Your task to perform on an android device: open app "The Home Depot" (install if not already installed) Image 0: 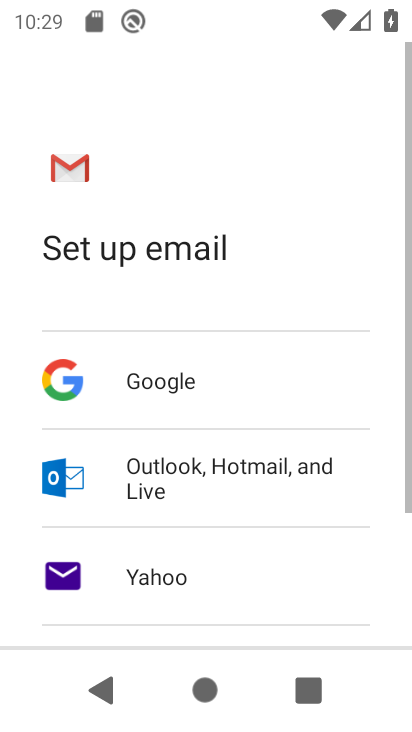
Step 0: press home button
Your task to perform on an android device: open app "The Home Depot" (install if not already installed) Image 1: 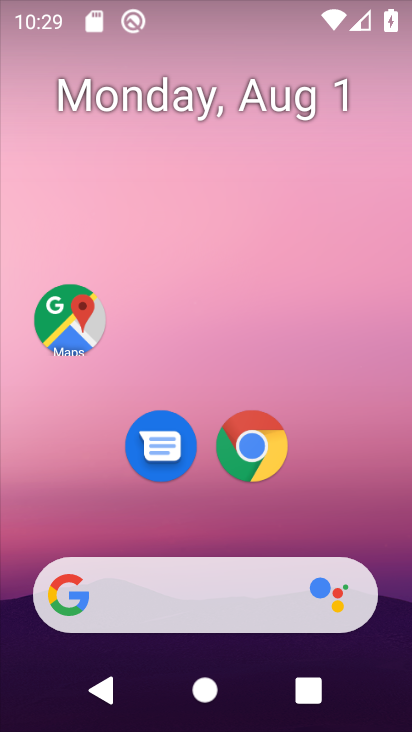
Step 1: drag from (216, 513) to (157, 110)
Your task to perform on an android device: open app "The Home Depot" (install if not already installed) Image 2: 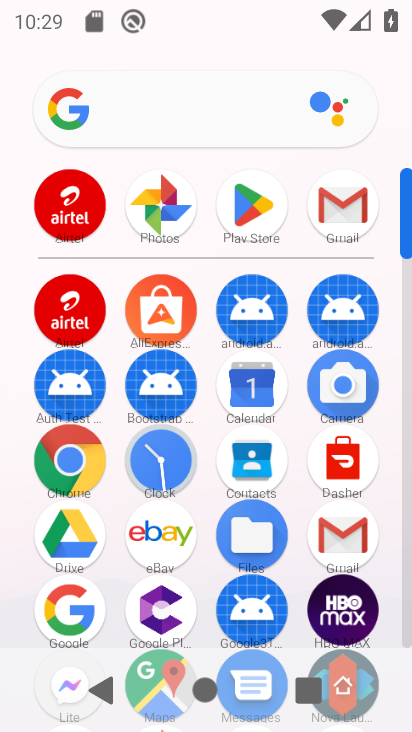
Step 2: click (246, 213)
Your task to perform on an android device: open app "The Home Depot" (install if not already installed) Image 3: 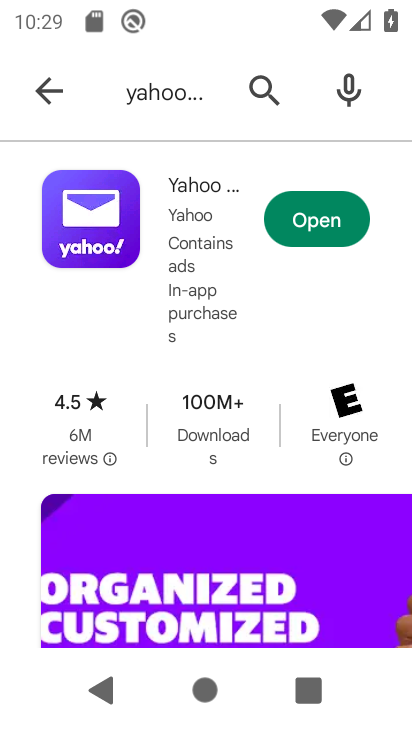
Step 3: click (255, 75)
Your task to perform on an android device: open app "The Home Depot" (install if not already installed) Image 4: 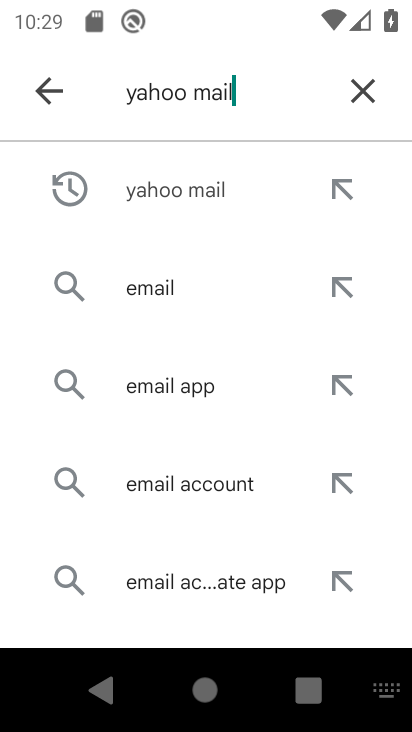
Step 4: click (366, 87)
Your task to perform on an android device: open app "The Home Depot" (install if not already installed) Image 5: 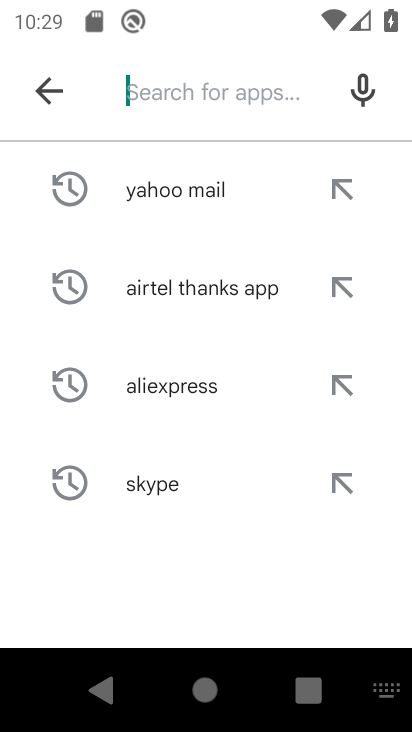
Step 5: type "The Home Depot"
Your task to perform on an android device: open app "The Home Depot" (install if not already installed) Image 6: 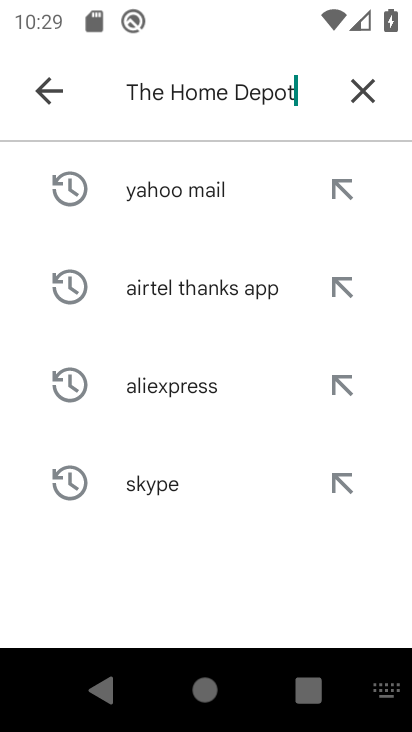
Step 6: type ""
Your task to perform on an android device: open app "The Home Depot" (install if not already installed) Image 7: 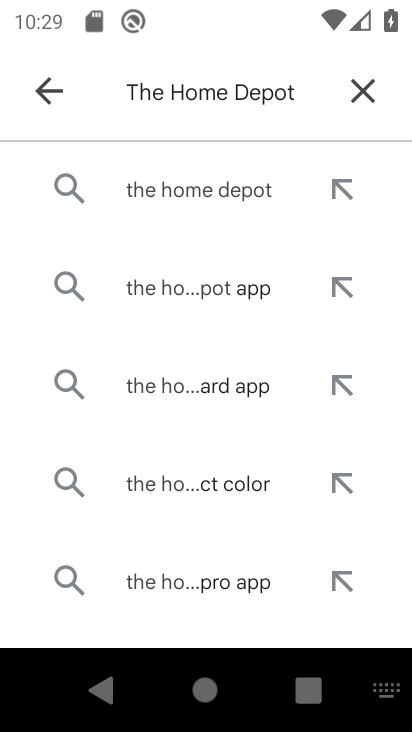
Step 7: click (243, 184)
Your task to perform on an android device: open app "The Home Depot" (install if not already installed) Image 8: 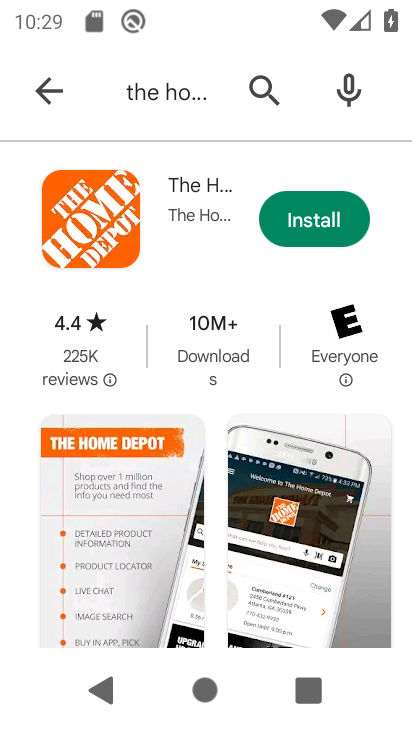
Step 8: click (317, 221)
Your task to perform on an android device: open app "The Home Depot" (install if not already installed) Image 9: 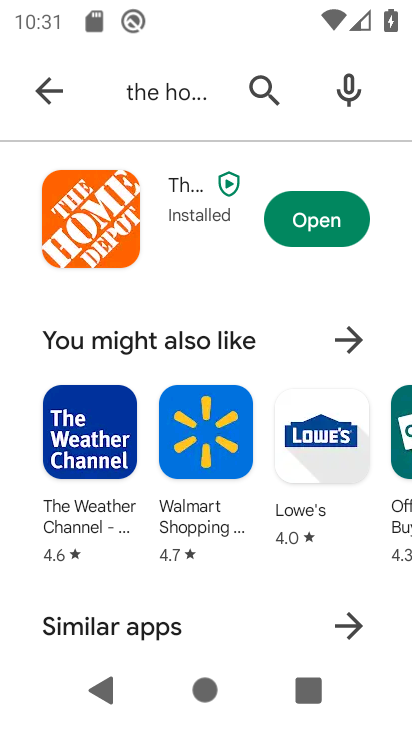
Step 9: click (327, 221)
Your task to perform on an android device: open app "The Home Depot" (install if not already installed) Image 10: 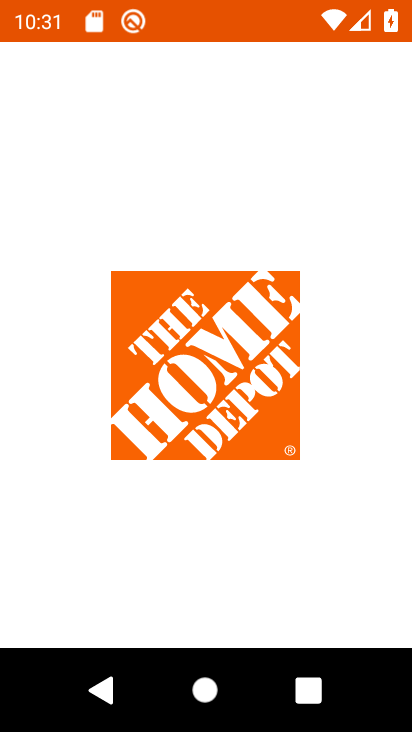
Step 10: task complete